Your task to perform on an android device: Open calendar and show me the second week of next month Image 0: 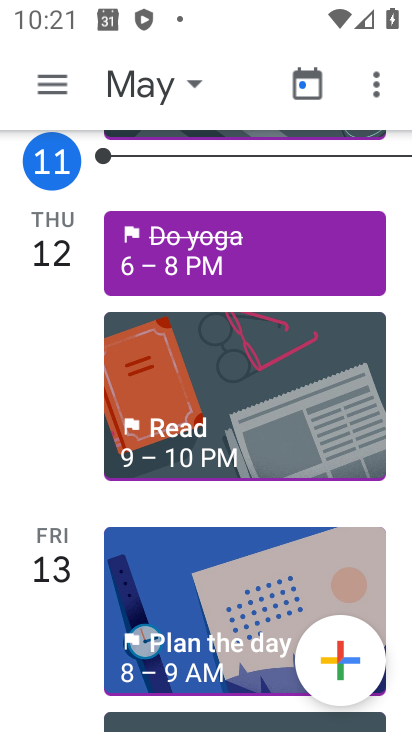
Step 0: press home button
Your task to perform on an android device: Open calendar and show me the second week of next month Image 1: 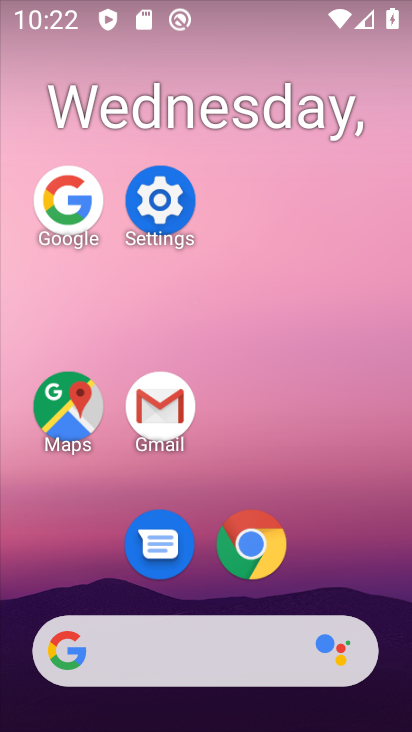
Step 1: drag from (317, 548) to (342, 128)
Your task to perform on an android device: Open calendar and show me the second week of next month Image 2: 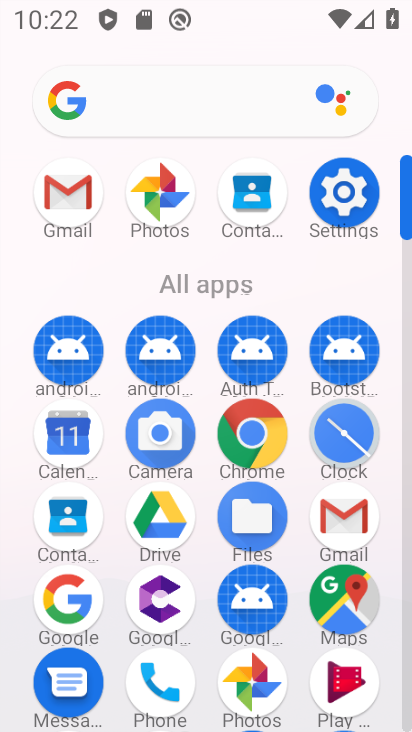
Step 2: drag from (64, 428) to (227, 243)
Your task to perform on an android device: Open calendar and show me the second week of next month Image 3: 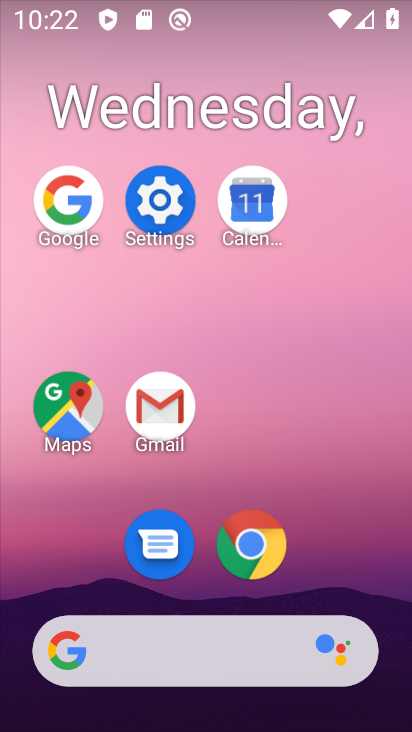
Step 3: click (236, 206)
Your task to perform on an android device: Open calendar and show me the second week of next month Image 4: 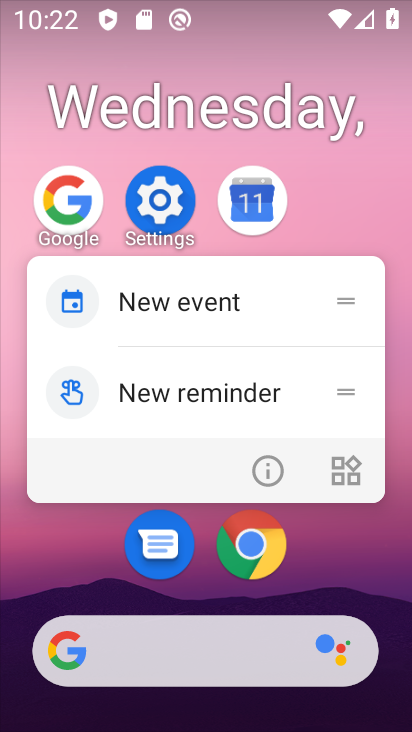
Step 4: click (266, 192)
Your task to perform on an android device: Open calendar and show me the second week of next month Image 5: 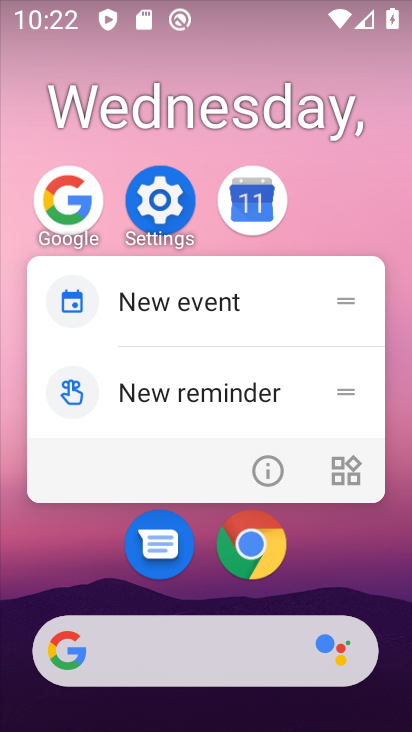
Step 5: click (266, 192)
Your task to perform on an android device: Open calendar and show me the second week of next month Image 6: 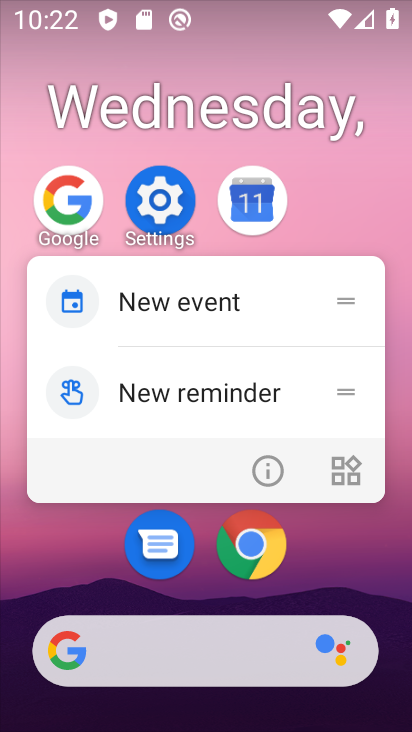
Step 6: click (266, 192)
Your task to perform on an android device: Open calendar and show me the second week of next month Image 7: 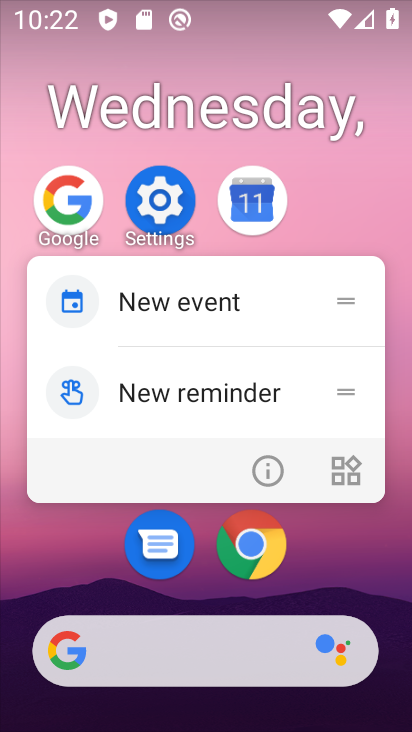
Step 7: click (266, 192)
Your task to perform on an android device: Open calendar and show me the second week of next month Image 8: 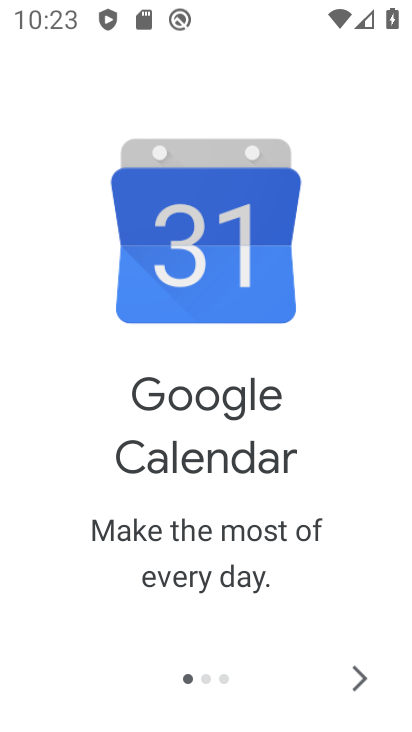
Step 8: click (352, 681)
Your task to perform on an android device: Open calendar and show me the second week of next month Image 9: 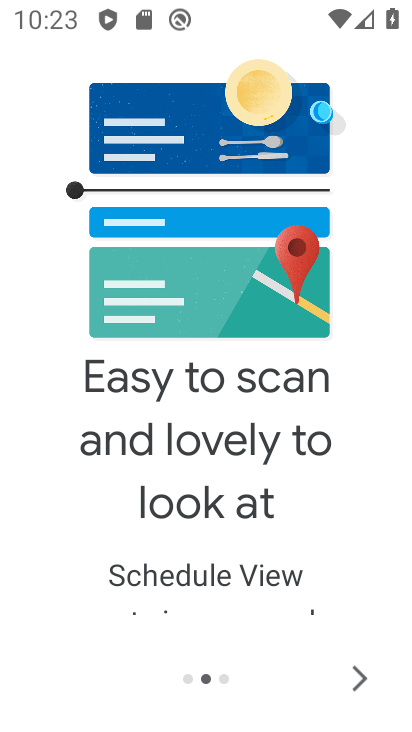
Step 9: click (352, 681)
Your task to perform on an android device: Open calendar and show me the second week of next month Image 10: 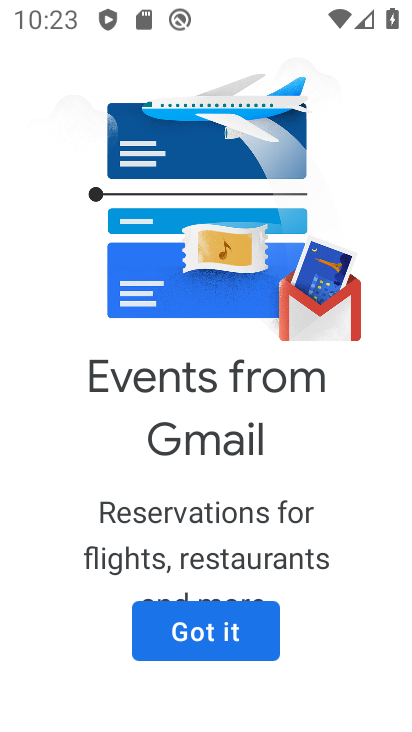
Step 10: click (352, 681)
Your task to perform on an android device: Open calendar and show me the second week of next month Image 11: 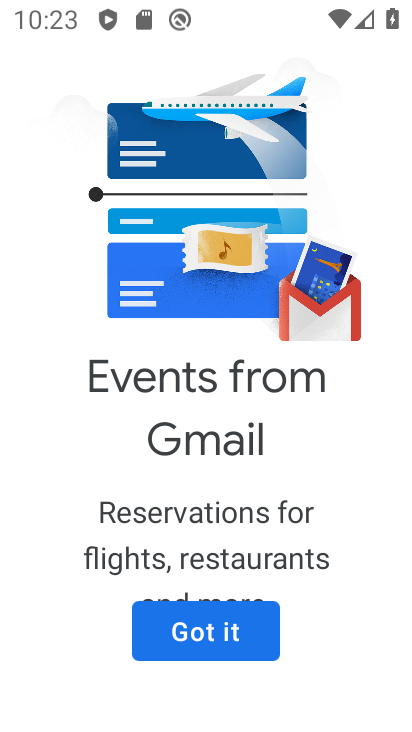
Step 11: click (229, 641)
Your task to perform on an android device: Open calendar and show me the second week of next month Image 12: 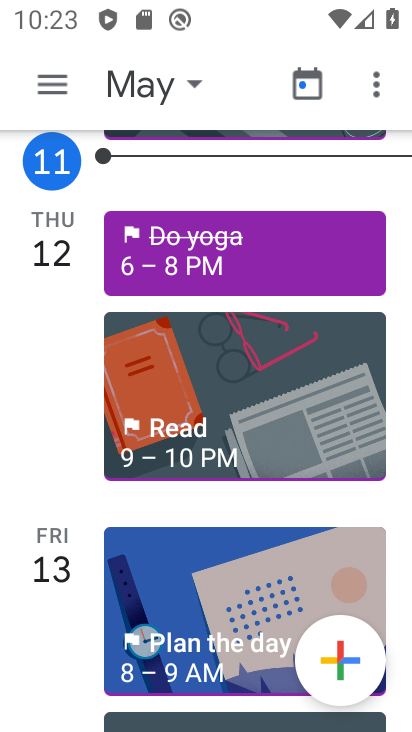
Step 12: click (61, 97)
Your task to perform on an android device: Open calendar and show me the second week of next month Image 13: 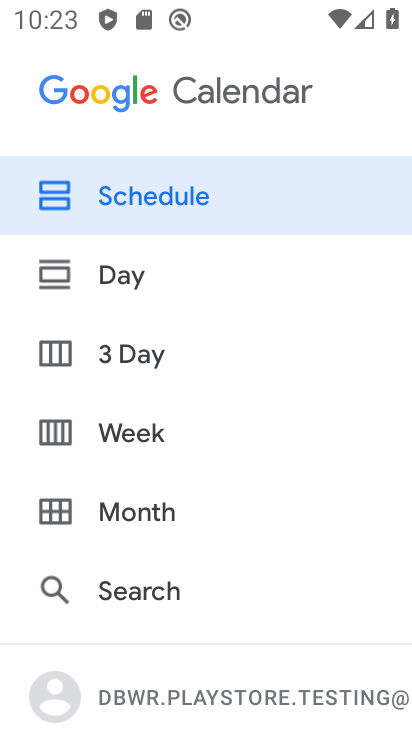
Step 13: click (168, 435)
Your task to perform on an android device: Open calendar and show me the second week of next month Image 14: 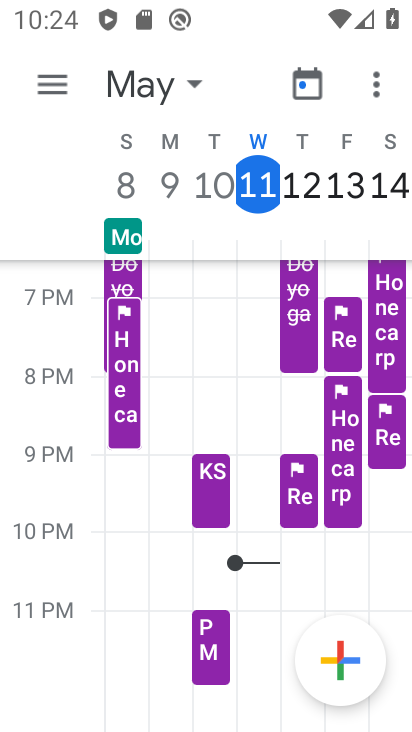
Step 14: click (165, 90)
Your task to perform on an android device: Open calendar and show me the second week of next month Image 15: 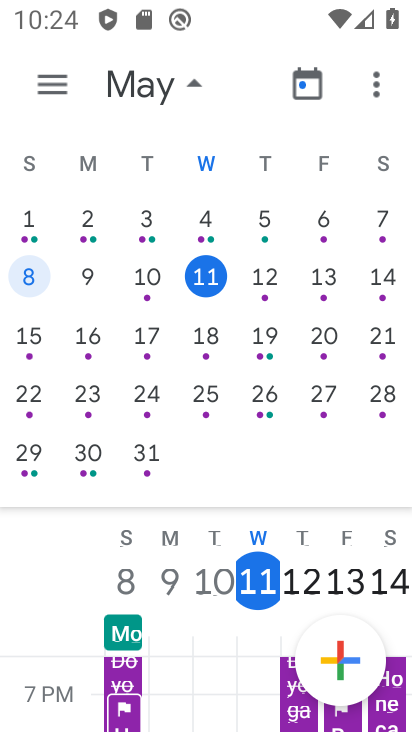
Step 15: drag from (401, 296) to (0, 284)
Your task to perform on an android device: Open calendar and show me the second week of next month Image 16: 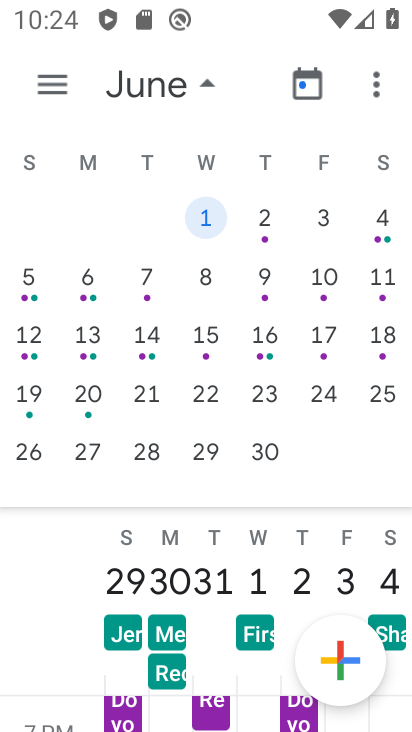
Step 16: click (52, 76)
Your task to perform on an android device: Open calendar and show me the second week of next month Image 17: 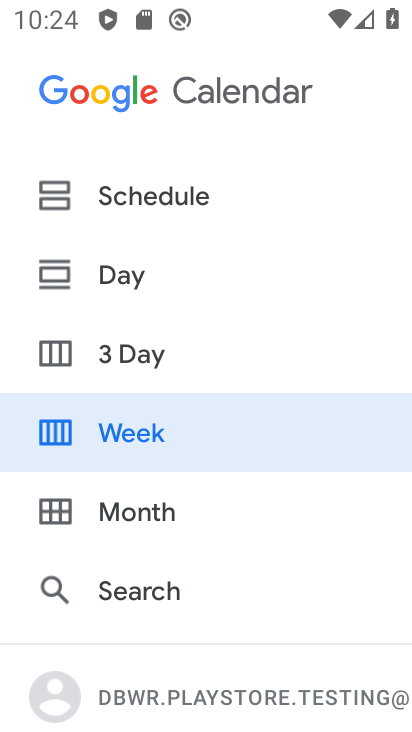
Step 17: click (146, 435)
Your task to perform on an android device: Open calendar and show me the second week of next month Image 18: 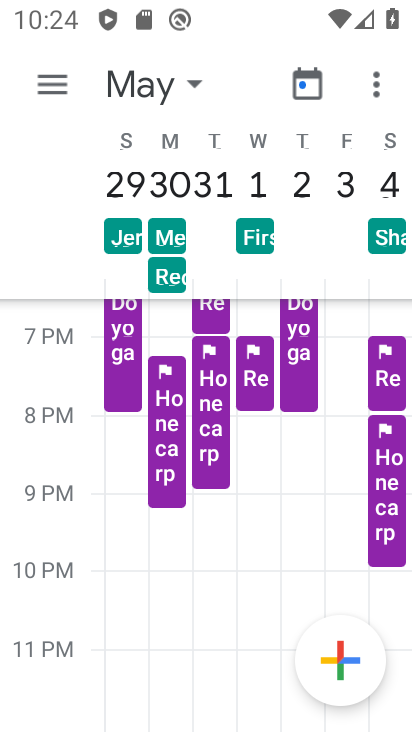
Step 18: task complete